Your task to perform on an android device: Show me recent news Image 0: 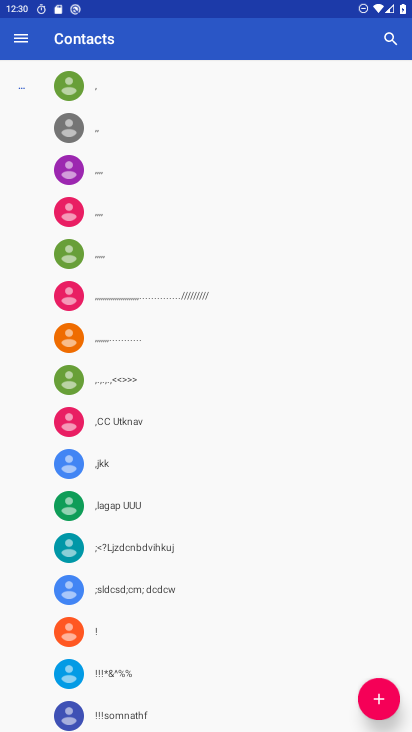
Step 0: press home button
Your task to perform on an android device: Show me recent news Image 1: 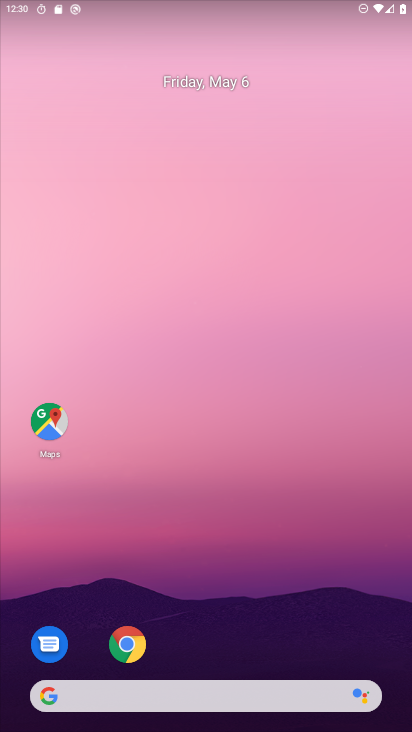
Step 1: drag from (362, 603) to (314, 119)
Your task to perform on an android device: Show me recent news Image 2: 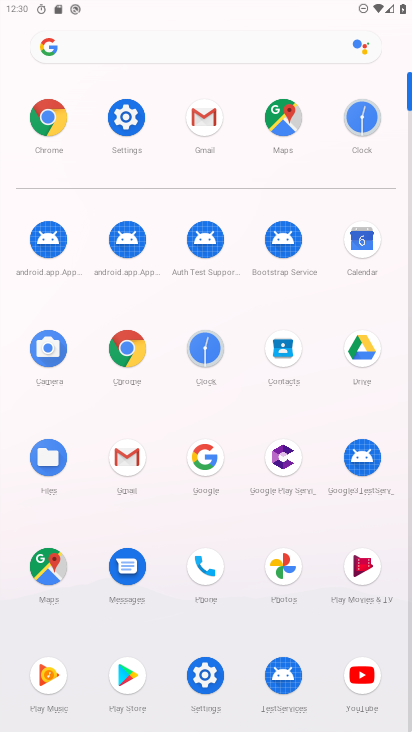
Step 2: click (118, 355)
Your task to perform on an android device: Show me recent news Image 3: 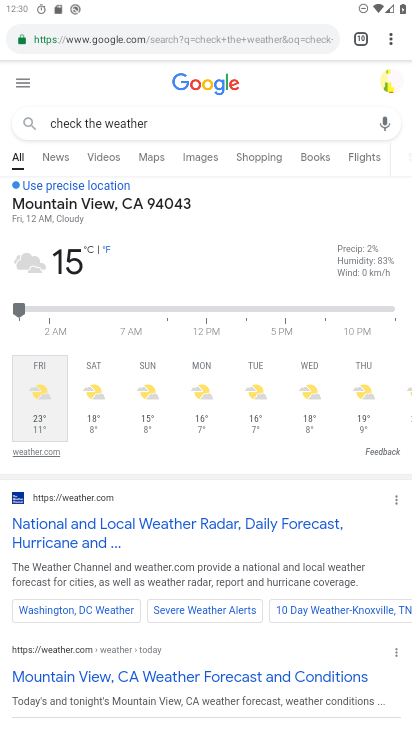
Step 3: click (143, 46)
Your task to perform on an android device: Show me recent news Image 4: 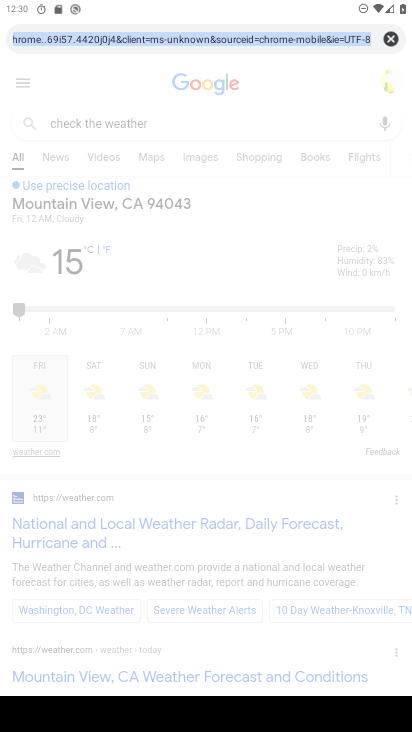
Step 4: click (393, 39)
Your task to perform on an android device: Show me recent news Image 5: 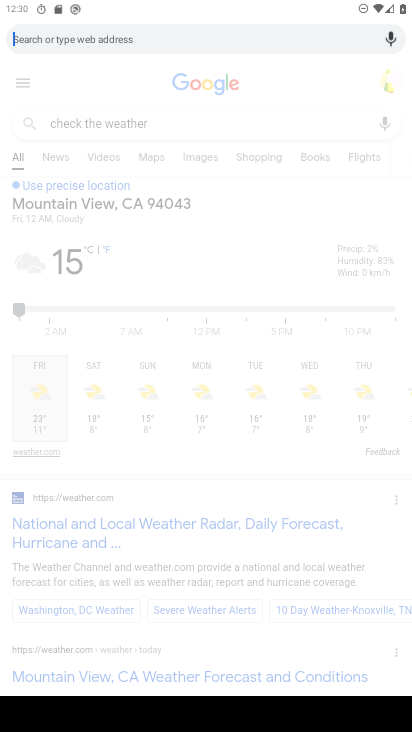
Step 5: type "recent news"
Your task to perform on an android device: Show me recent news Image 6: 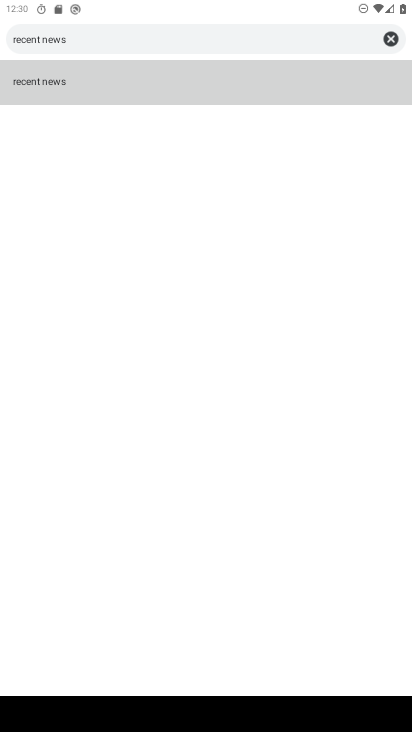
Step 6: click (42, 81)
Your task to perform on an android device: Show me recent news Image 7: 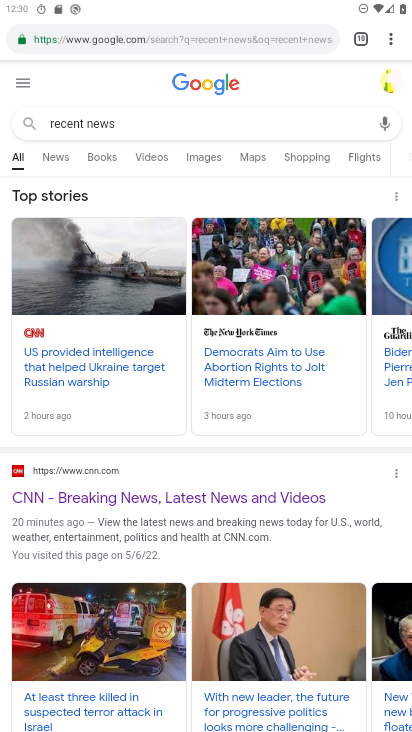
Step 7: click (73, 501)
Your task to perform on an android device: Show me recent news Image 8: 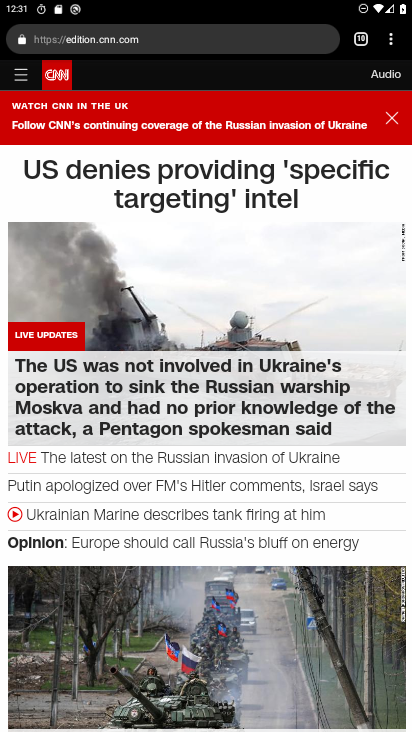
Step 8: task complete